Your task to perform on an android device: Go to calendar. Show me events next week Image 0: 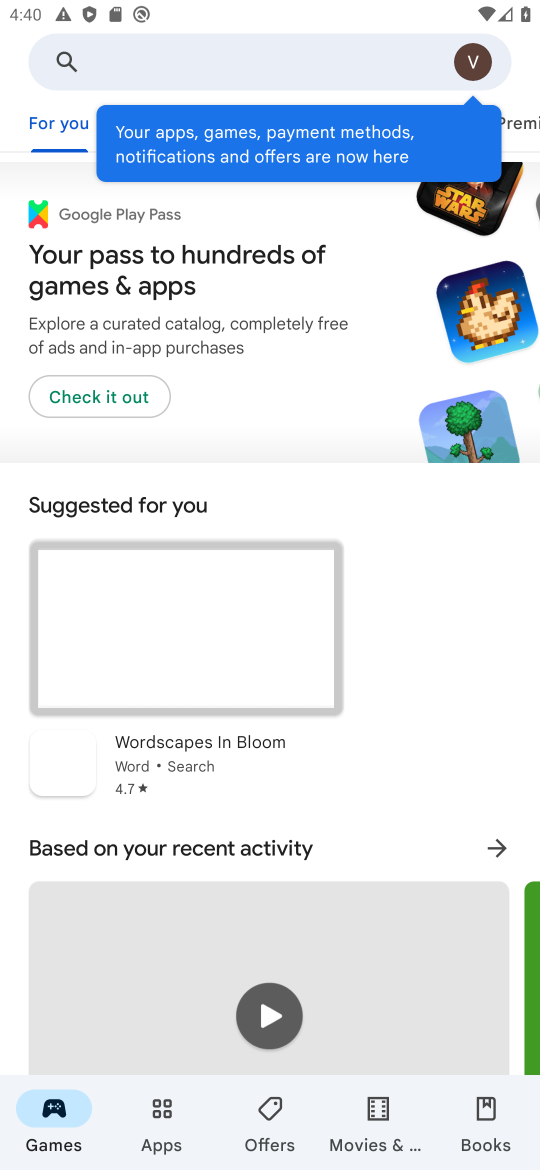
Step 0: press home button
Your task to perform on an android device: Go to calendar. Show me events next week Image 1: 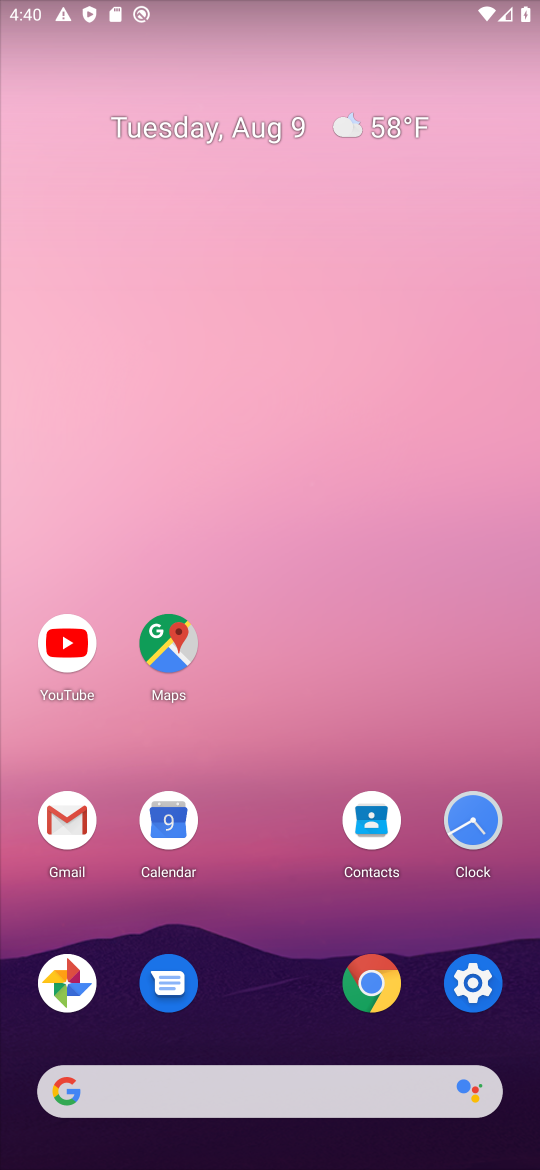
Step 1: click (164, 830)
Your task to perform on an android device: Go to calendar. Show me events next week Image 2: 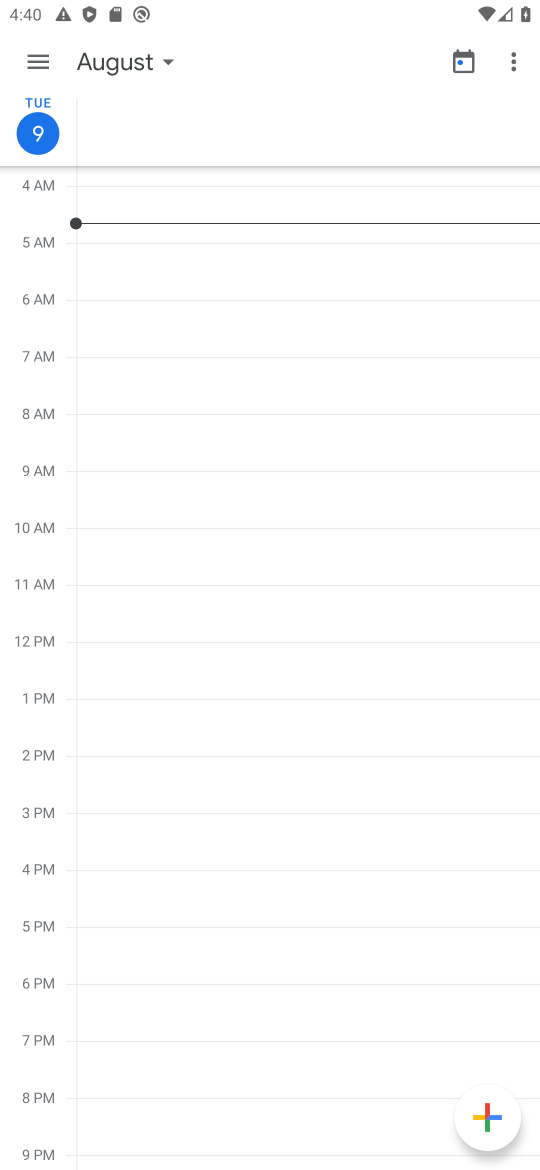
Step 2: click (39, 50)
Your task to perform on an android device: Go to calendar. Show me events next week Image 3: 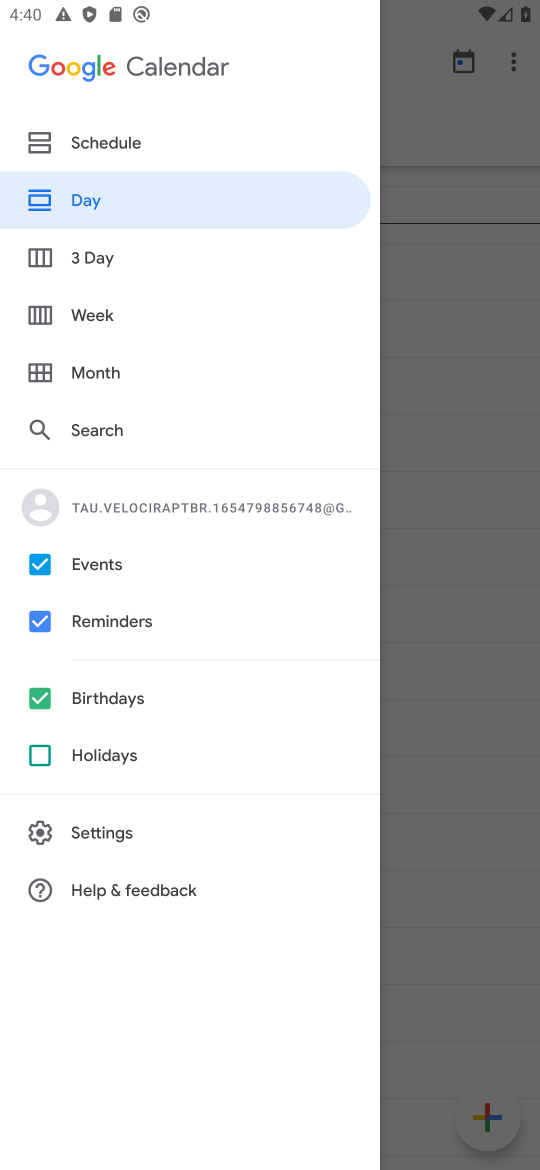
Step 3: click (67, 315)
Your task to perform on an android device: Go to calendar. Show me events next week Image 4: 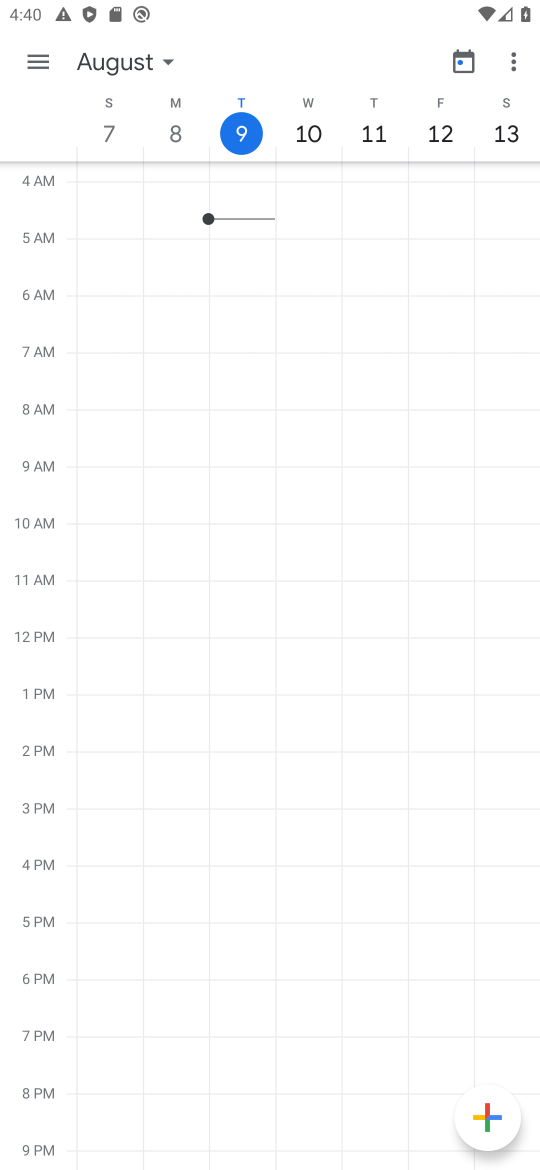
Step 4: click (171, 63)
Your task to perform on an android device: Go to calendar. Show me events next week Image 5: 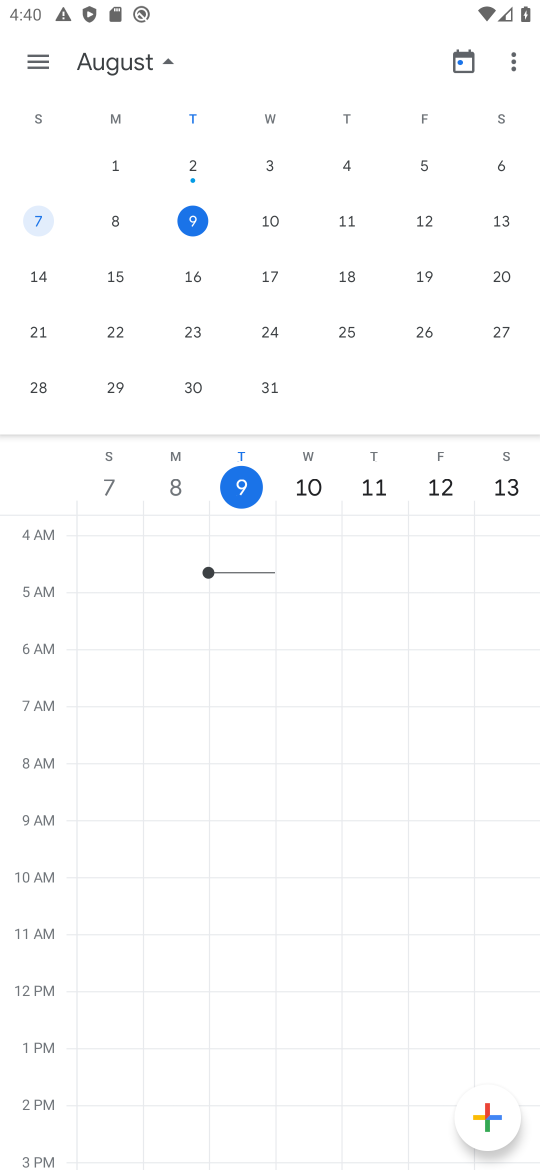
Step 5: click (192, 270)
Your task to perform on an android device: Go to calendar. Show me events next week Image 6: 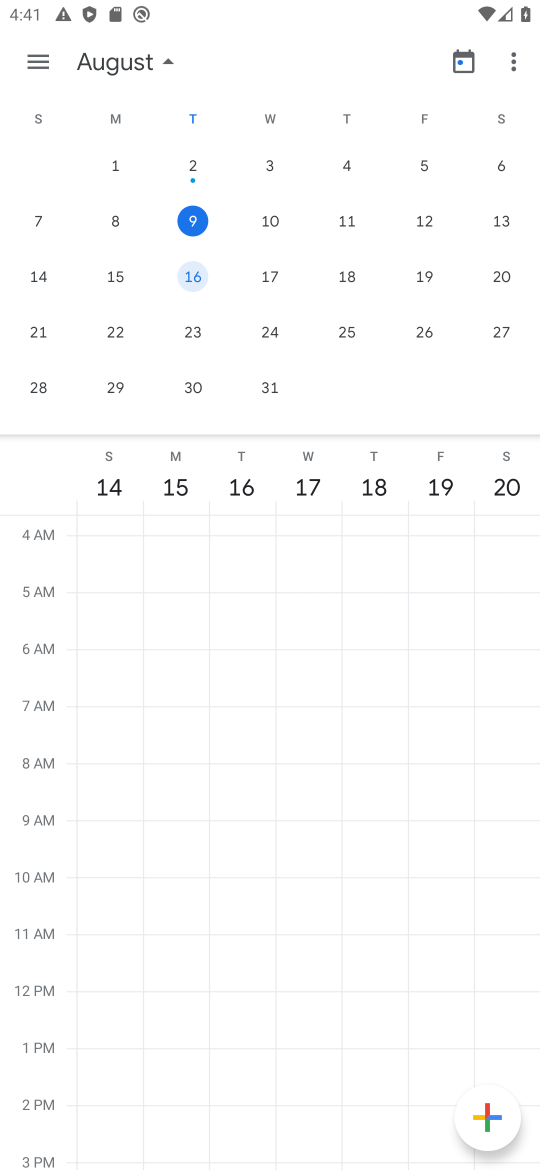
Step 6: task complete